Your task to perform on an android device: install app "Google Play Games" Image 0: 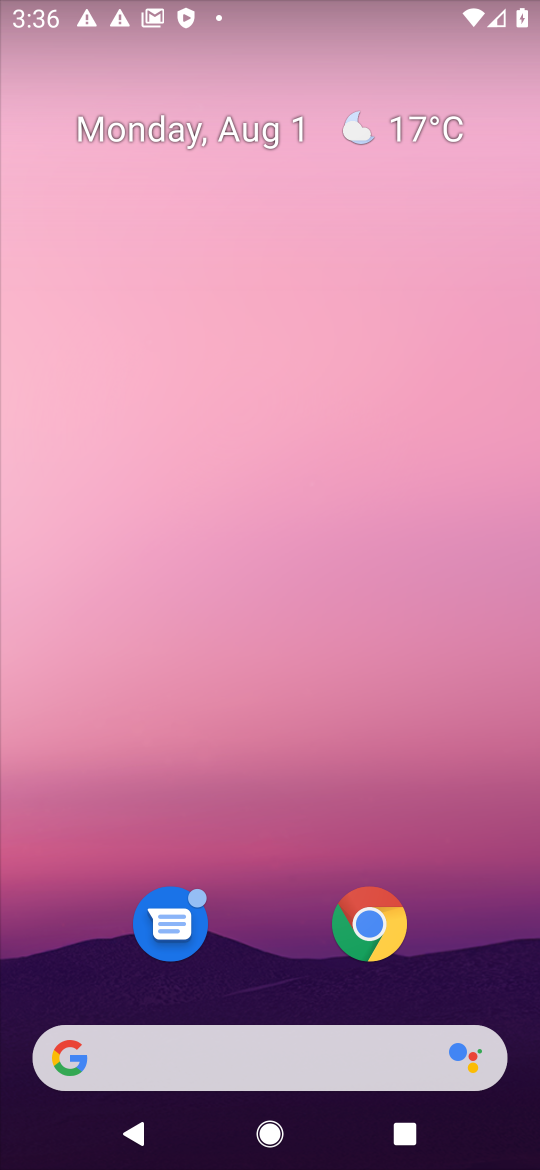
Step 0: drag from (310, 1133) to (343, 97)
Your task to perform on an android device: install app "Google Play Games" Image 1: 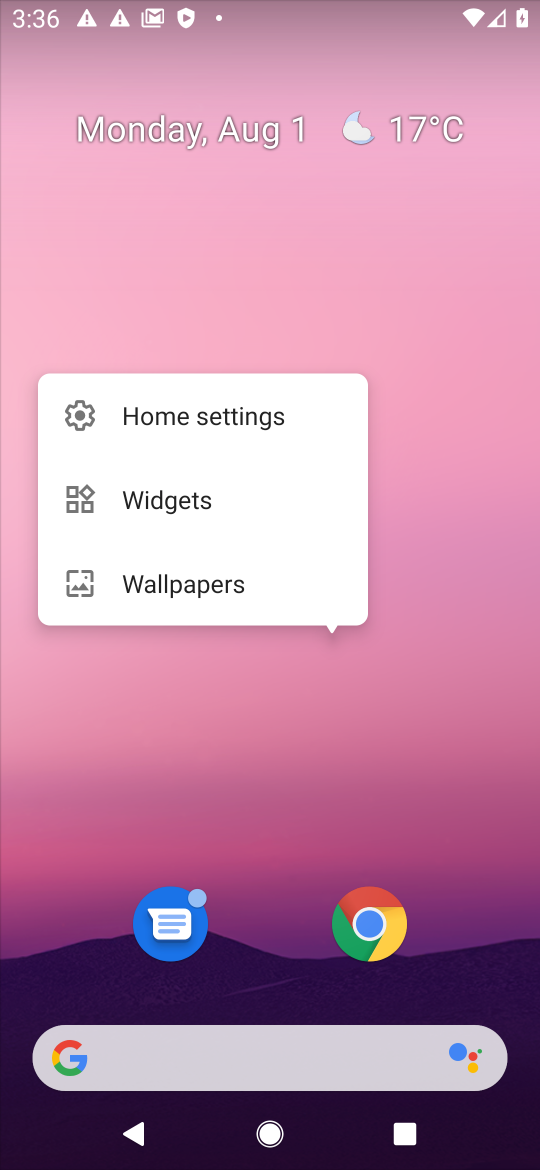
Step 1: press home button
Your task to perform on an android device: install app "Google Play Games" Image 2: 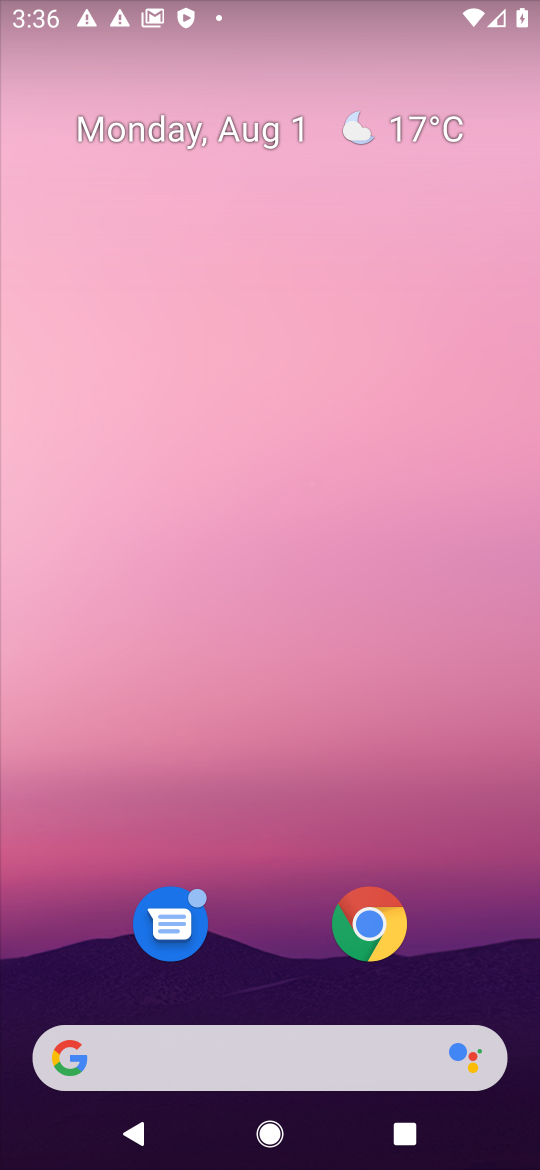
Step 2: drag from (298, 1160) to (301, 95)
Your task to perform on an android device: install app "Google Play Games" Image 3: 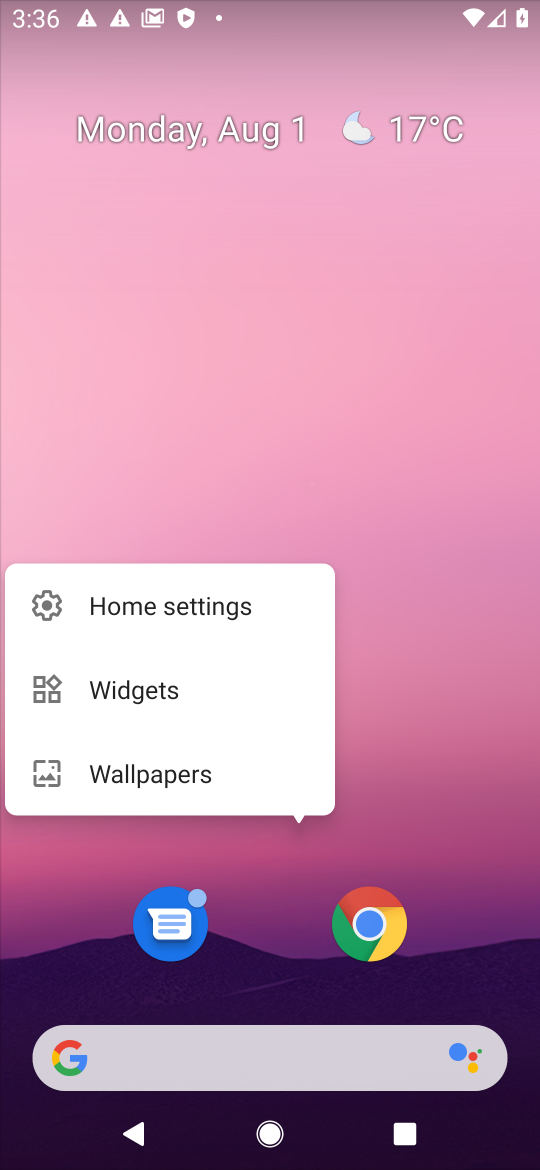
Step 3: click (468, 562)
Your task to perform on an android device: install app "Google Play Games" Image 4: 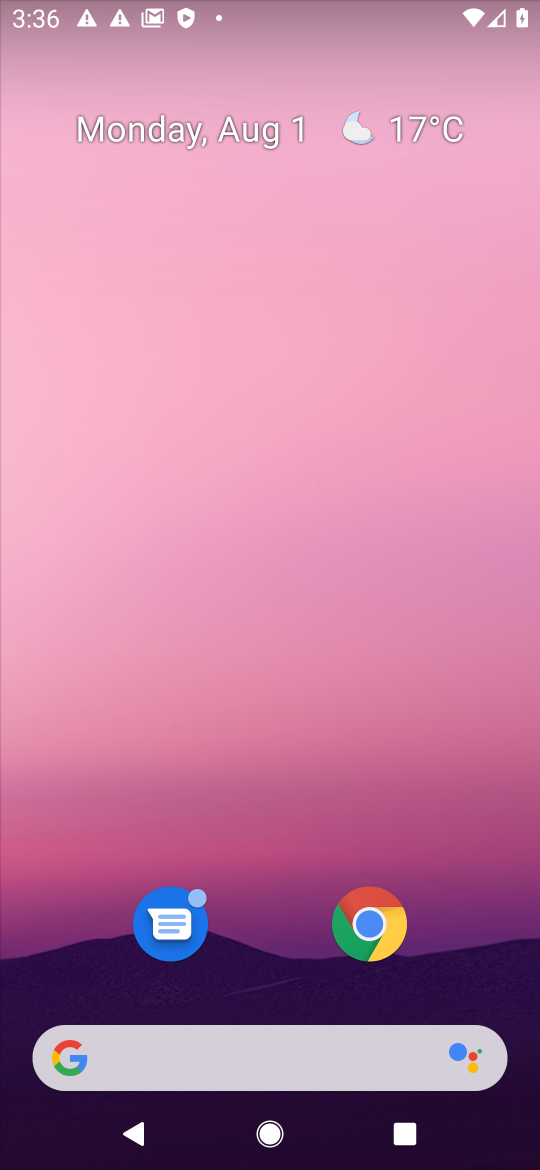
Step 4: drag from (326, 979) to (326, 149)
Your task to perform on an android device: install app "Google Play Games" Image 5: 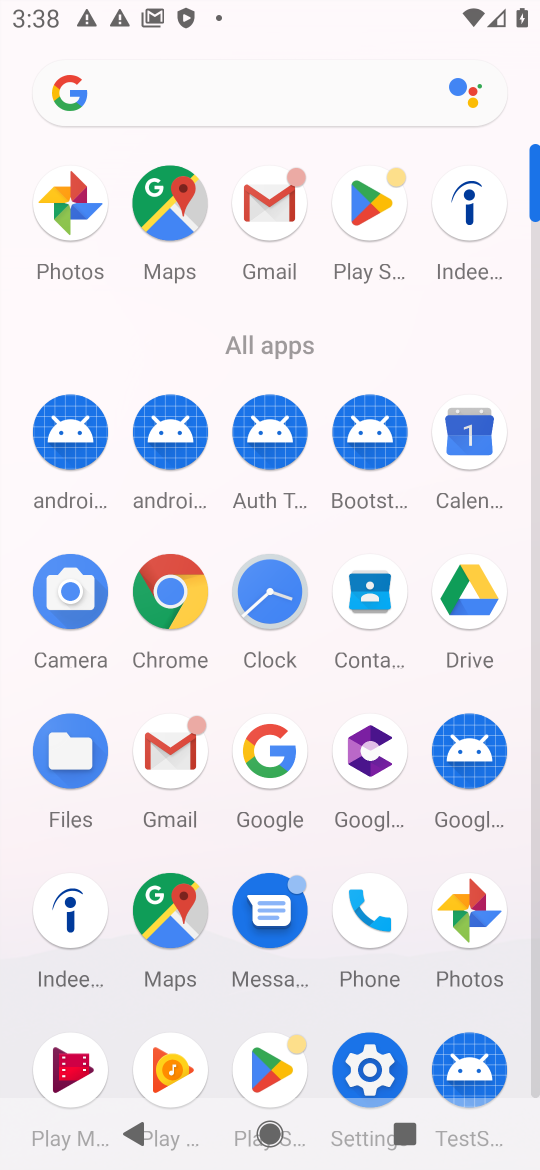
Step 5: click (375, 197)
Your task to perform on an android device: install app "Google Play Games" Image 6: 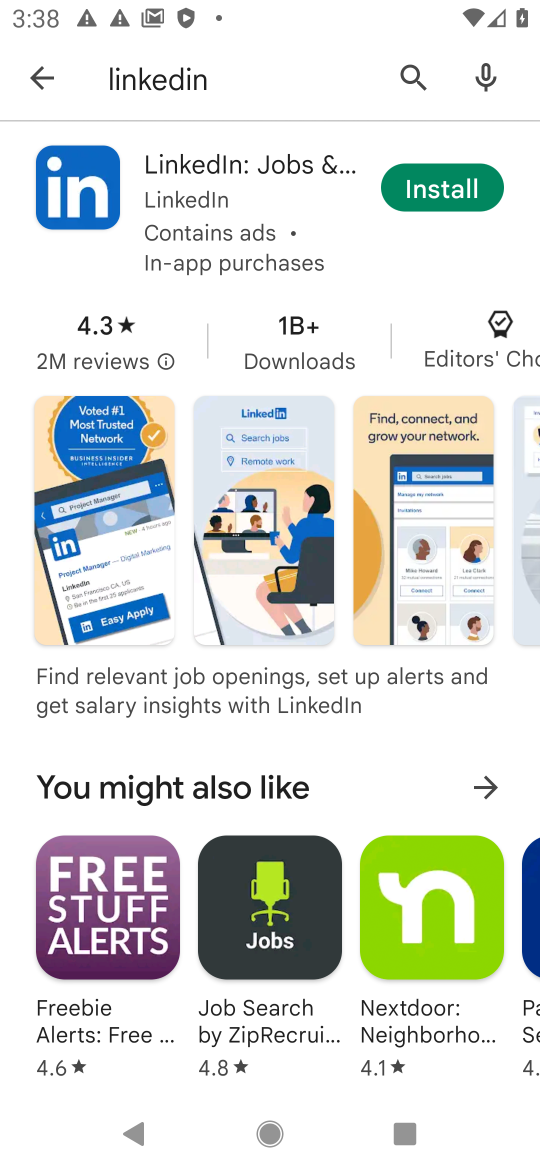
Step 6: click (404, 67)
Your task to perform on an android device: install app "Google Play Games" Image 7: 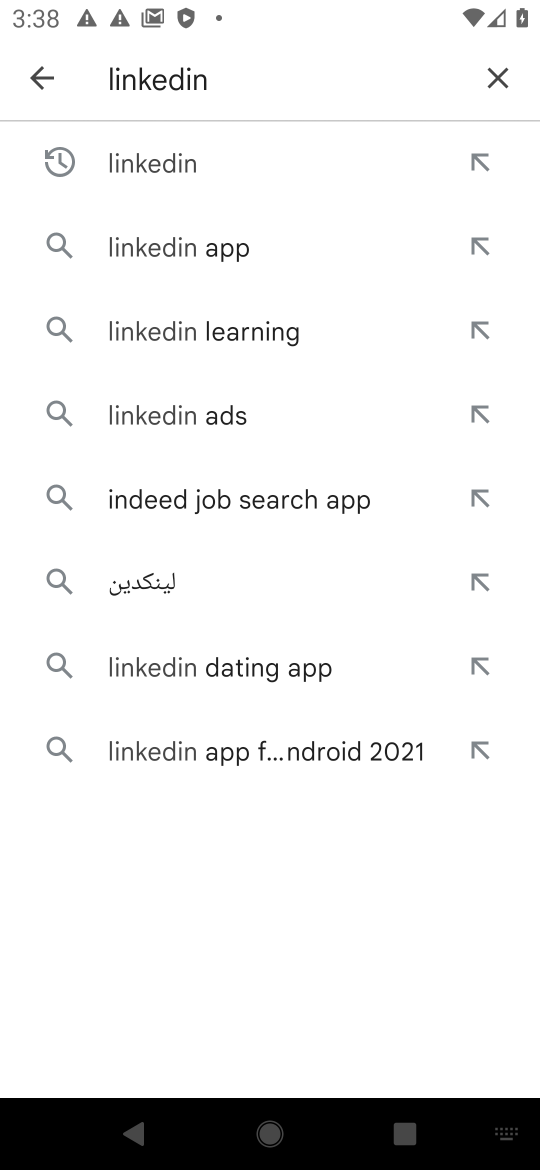
Step 7: click (503, 70)
Your task to perform on an android device: install app "Google Play Games" Image 8: 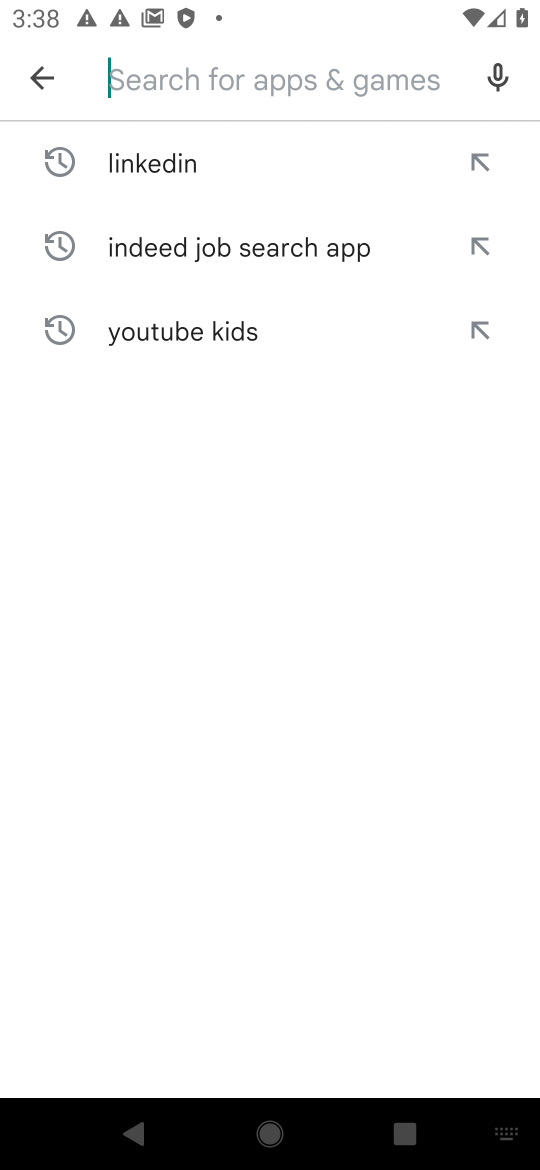
Step 8: type "Google Play Games"
Your task to perform on an android device: install app "Google Play Games" Image 9: 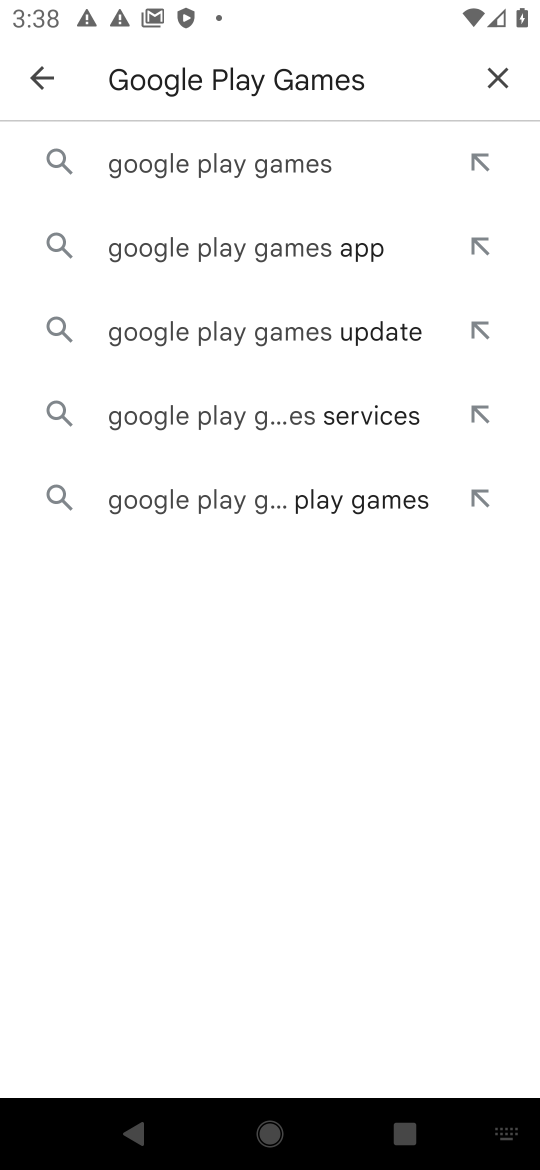
Step 9: click (274, 159)
Your task to perform on an android device: install app "Google Play Games" Image 10: 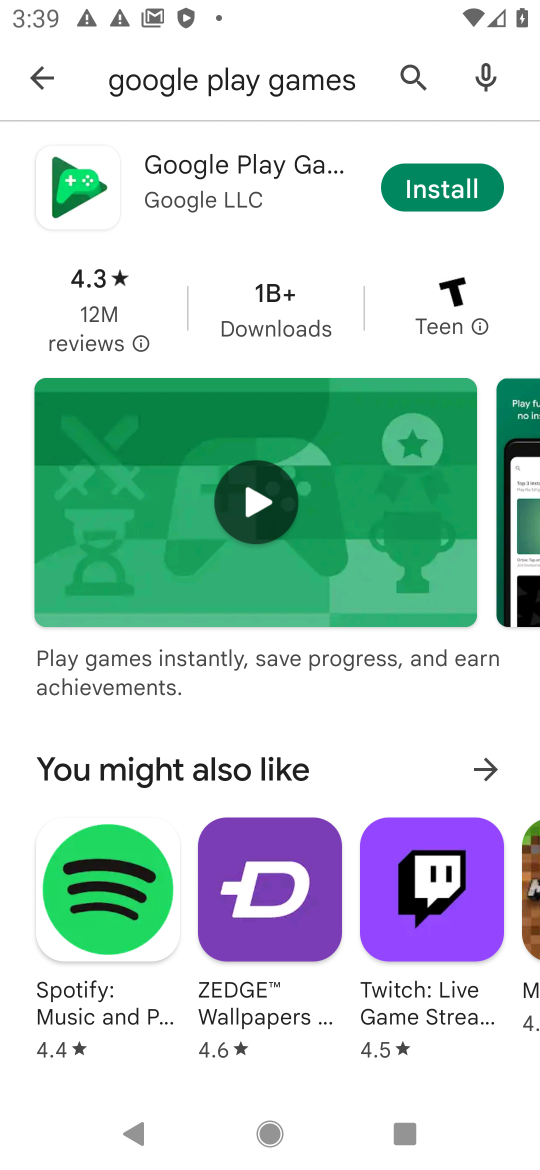
Step 10: click (471, 187)
Your task to perform on an android device: install app "Google Play Games" Image 11: 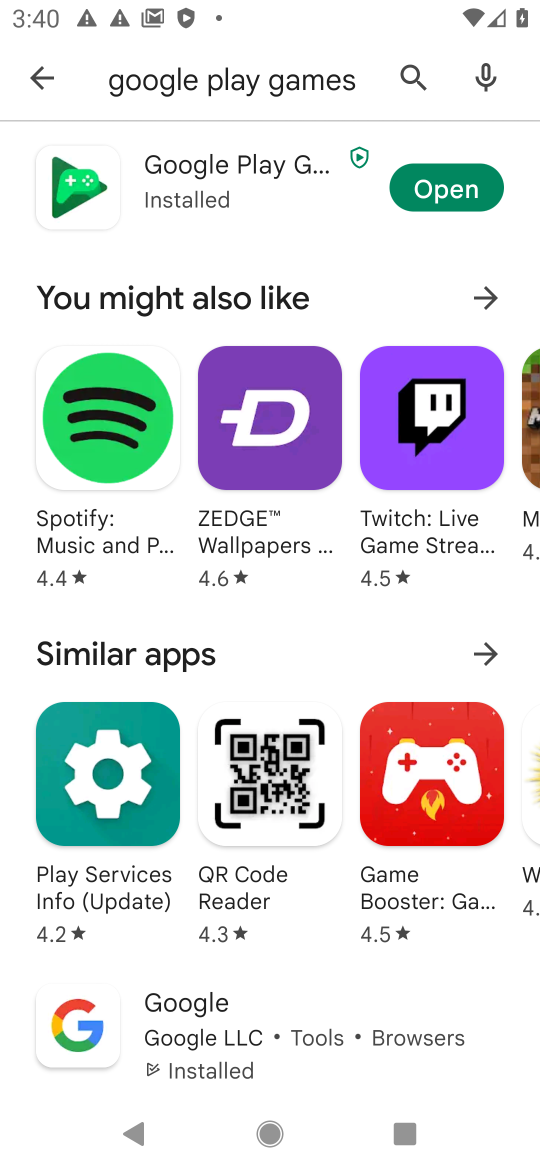
Step 11: task complete